Your task to perform on an android device: empty trash in google photos Image 0: 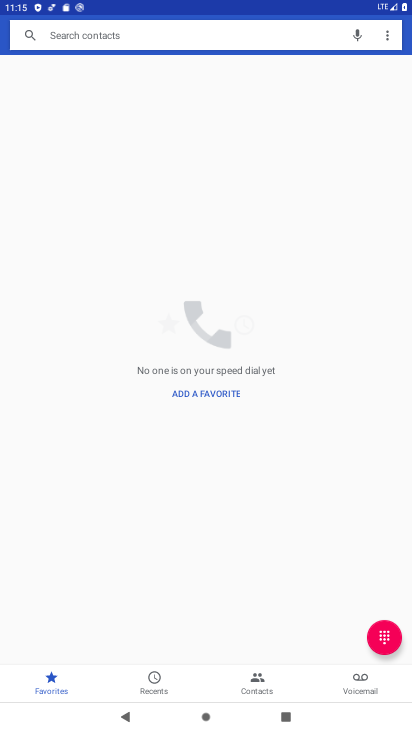
Step 0: press home button
Your task to perform on an android device: empty trash in google photos Image 1: 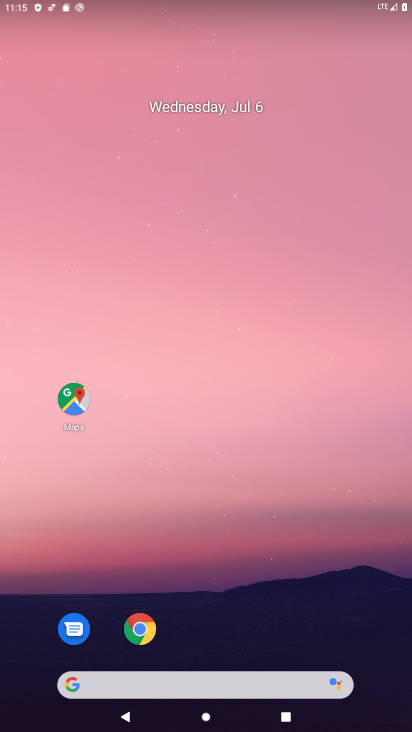
Step 1: drag from (218, 462) to (224, 201)
Your task to perform on an android device: empty trash in google photos Image 2: 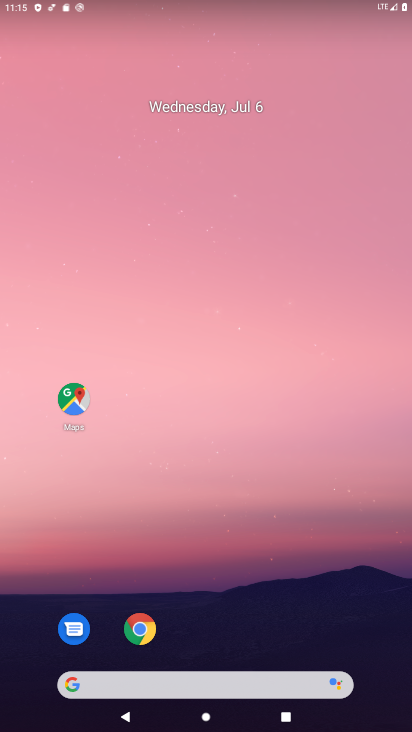
Step 2: drag from (219, 627) to (219, 179)
Your task to perform on an android device: empty trash in google photos Image 3: 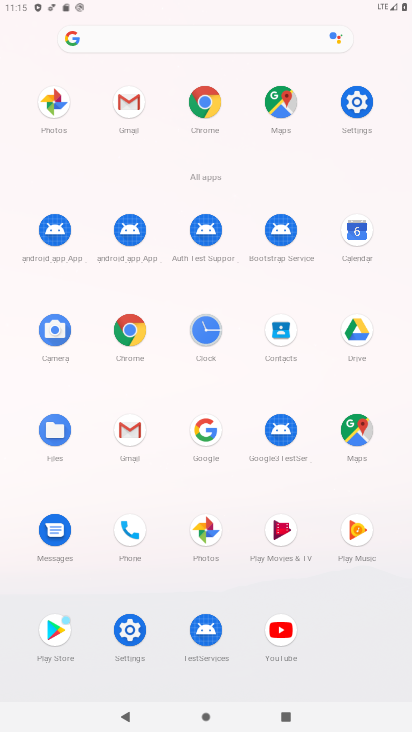
Step 3: click (50, 98)
Your task to perform on an android device: empty trash in google photos Image 4: 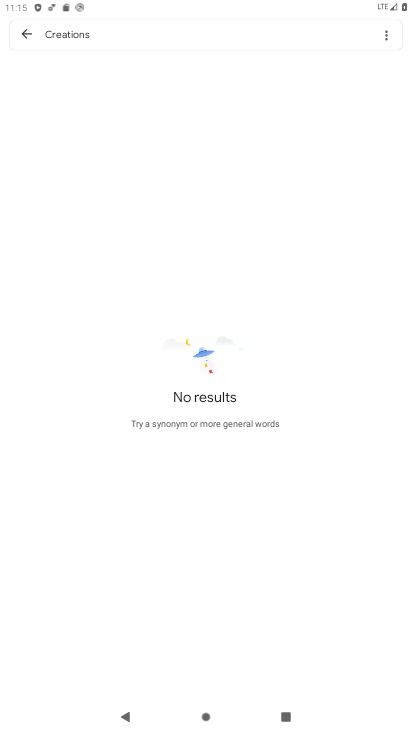
Step 4: click (24, 39)
Your task to perform on an android device: empty trash in google photos Image 5: 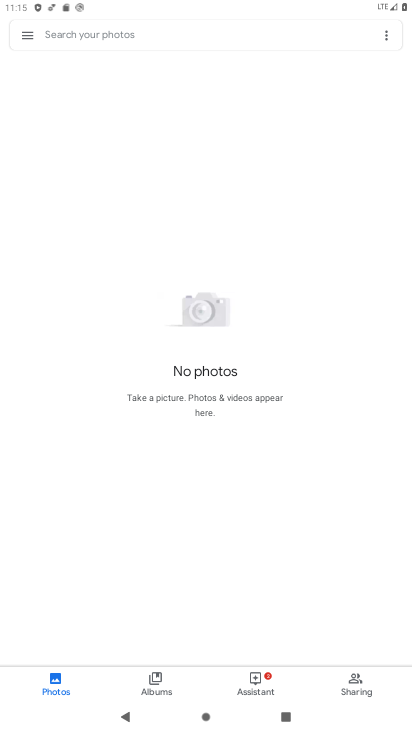
Step 5: click (24, 39)
Your task to perform on an android device: empty trash in google photos Image 6: 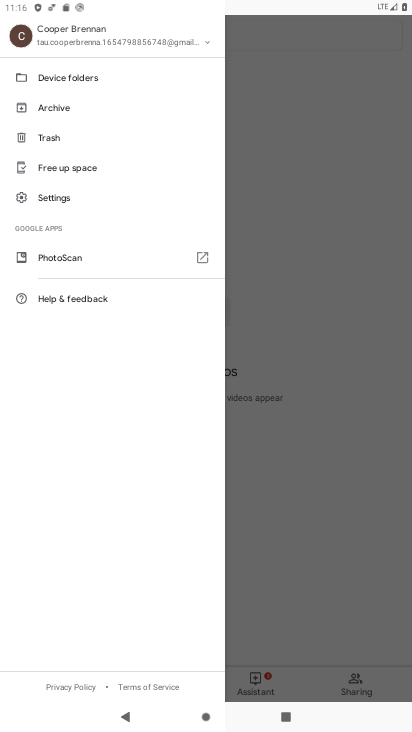
Step 6: click (62, 136)
Your task to perform on an android device: empty trash in google photos Image 7: 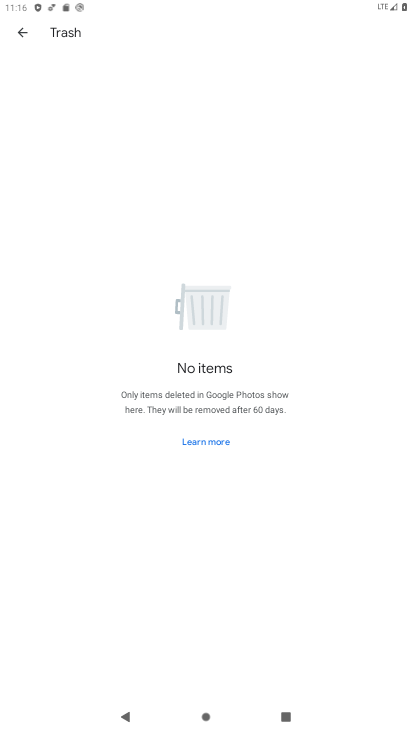
Step 7: task complete